Your task to perform on an android device: Open calendar and show me the first week of next month Image 0: 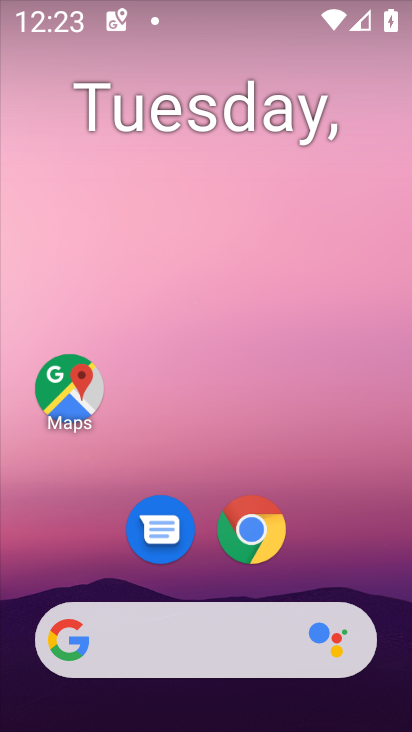
Step 0: drag from (214, 555) to (231, 57)
Your task to perform on an android device: Open calendar and show me the first week of next month Image 1: 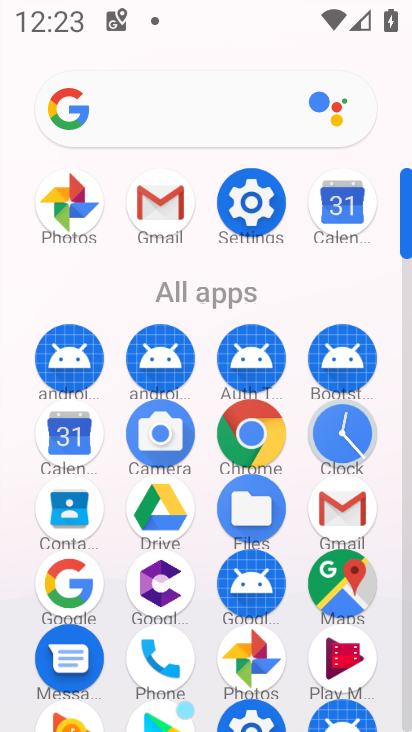
Step 1: click (343, 204)
Your task to perform on an android device: Open calendar and show me the first week of next month Image 2: 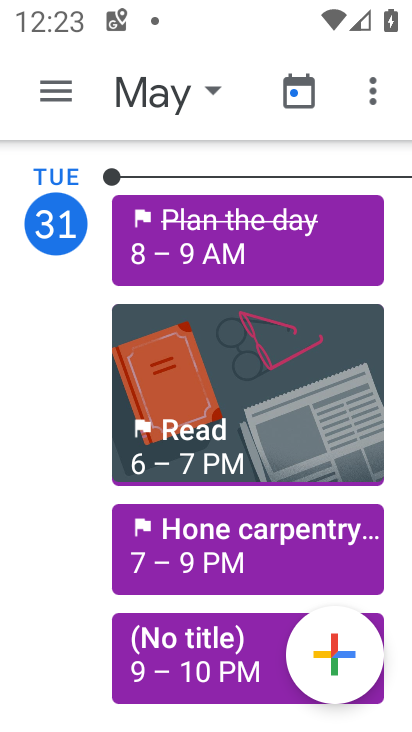
Step 2: click (200, 75)
Your task to perform on an android device: Open calendar and show me the first week of next month Image 3: 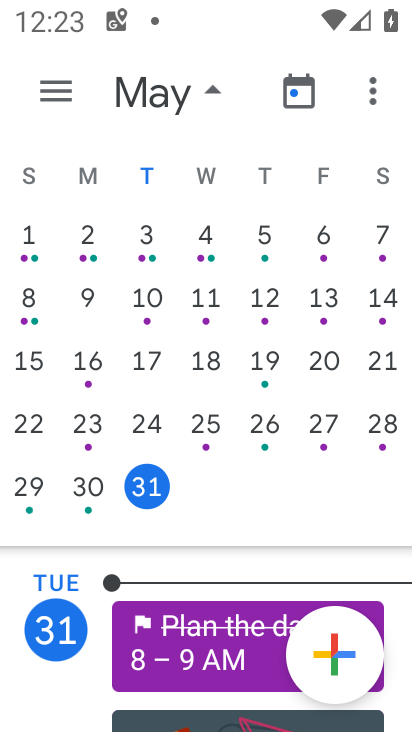
Step 3: task complete